Your task to perform on an android device: Do I have any events tomorrow? Image 0: 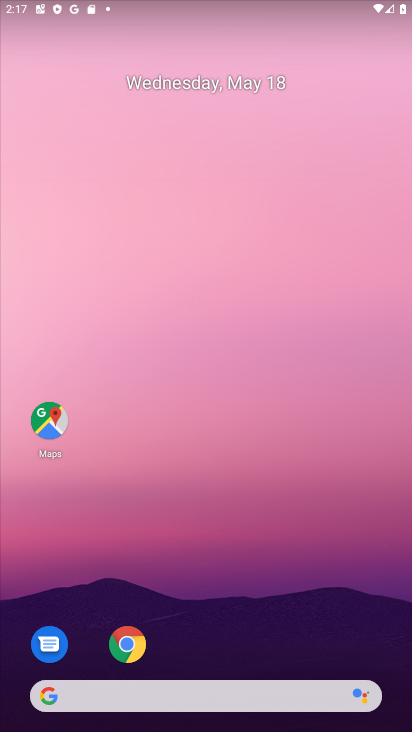
Step 0: drag from (256, 620) to (173, 150)
Your task to perform on an android device: Do I have any events tomorrow? Image 1: 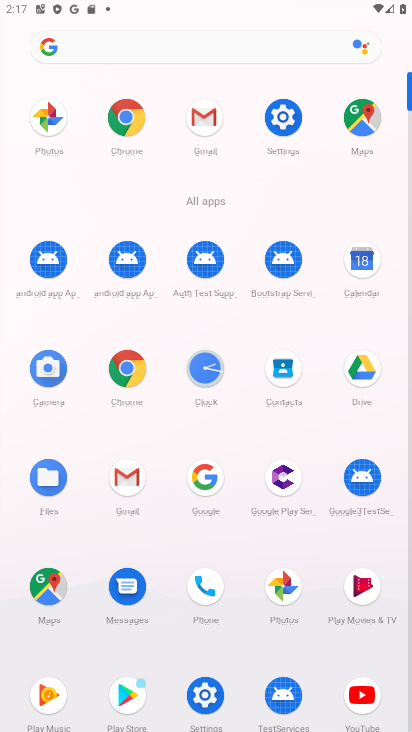
Step 1: click (366, 261)
Your task to perform on an android device: Do I have any events tomorrow? Image 2: 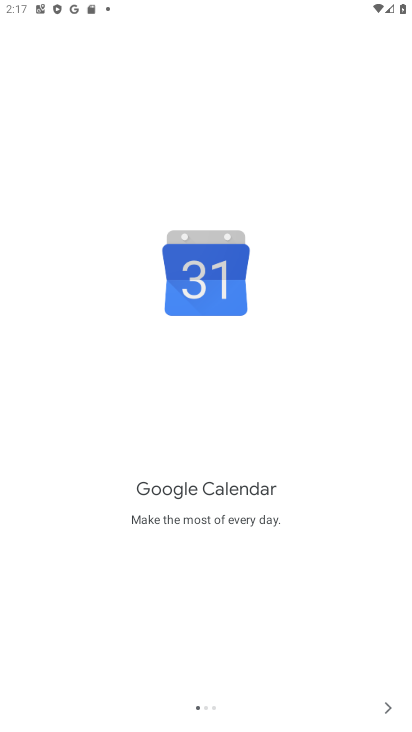
Step 2: click (390, 705)
Your task to perform on an android device: Do I have any events tomorrow? Image 3: 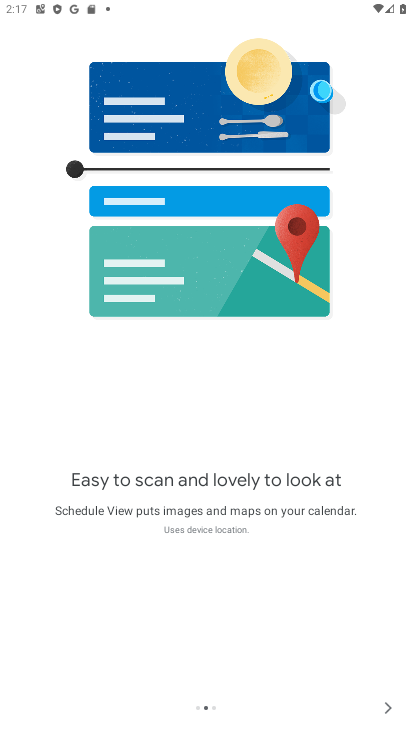
Step 3: click (390, 705)
Your task to perform on an android device: Do I have any events tomorrow? Image 4: 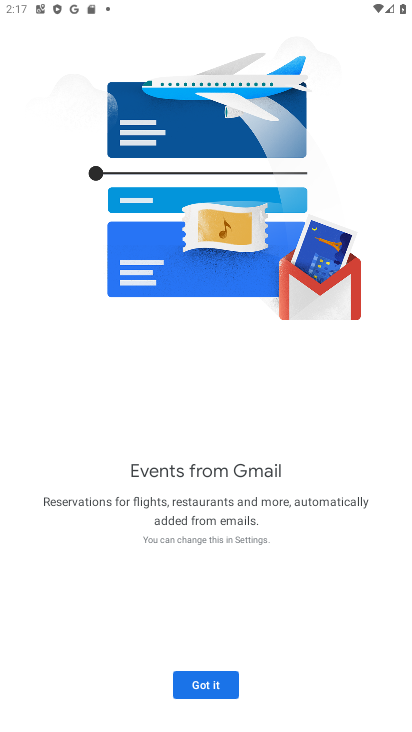
Step 4: click (225, 679)
Your task to perform on an android device: Do I have any events tomorrow? Image 5: 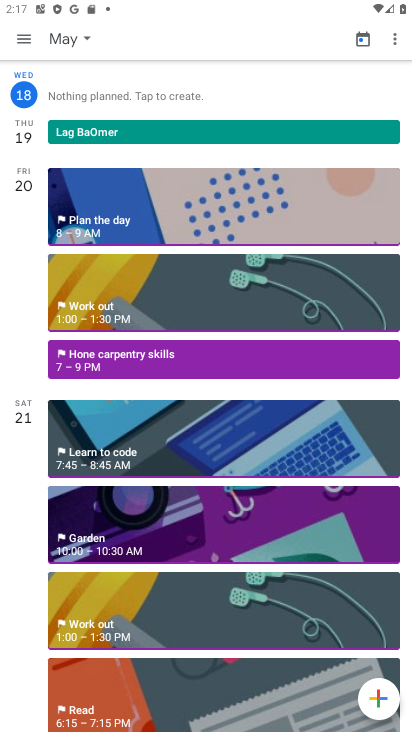
Step 5: click (91, 35)
Your task to perform on an android device: Do I have any events tomorrow? Image 6: 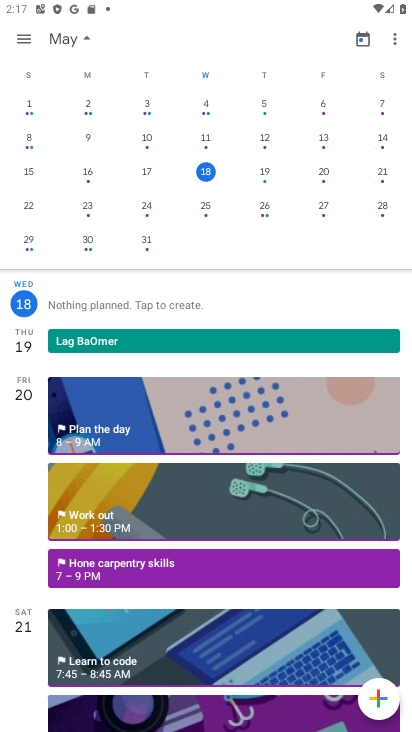
Step 6: click (264, 180)
Your task to perform on an android device: Do I have any events tomorrow? Image 7: 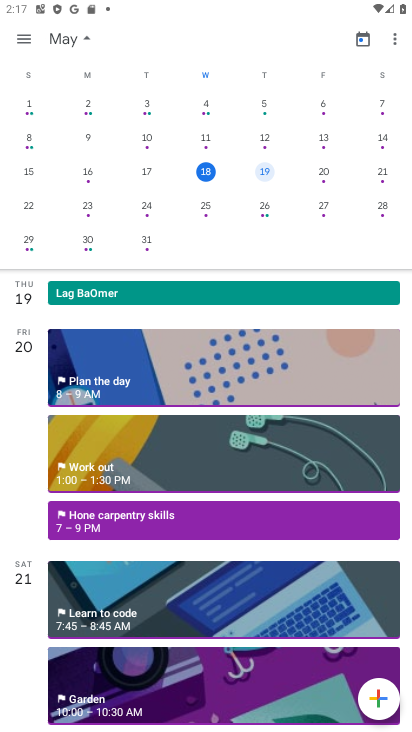
Step 7: click (32, 40)
Your task to perform on an android device: Do I have any events tomorrow? Image 8: 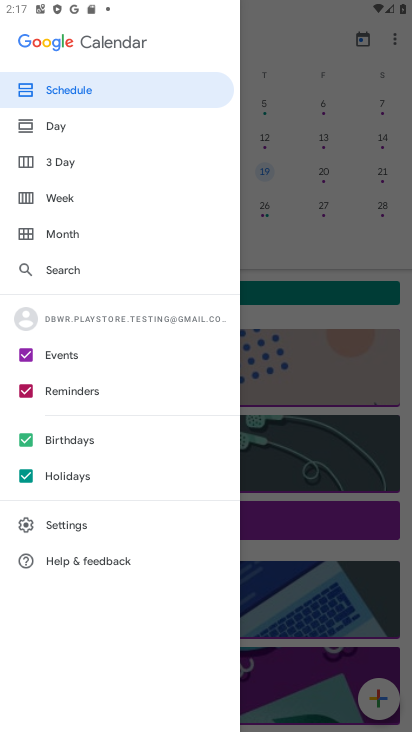
Step 8: click (69, 99)
Your task to perform on an android device: Do I have any events tomorrow? Image 9: 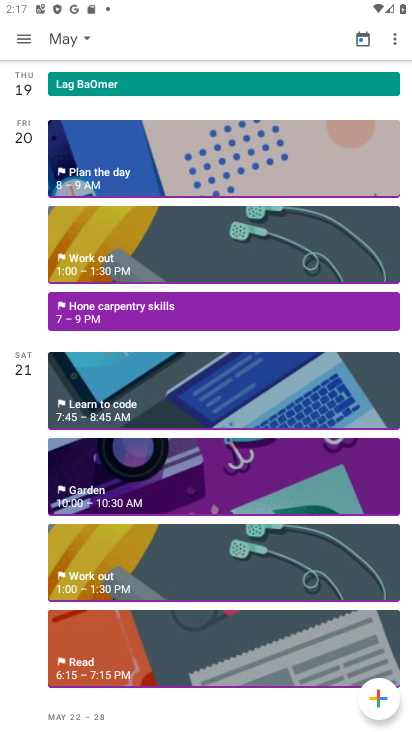
Step 9: click (193, 80)
Your task to perform on an android device: Do I have any events tomorrow? Image 10: 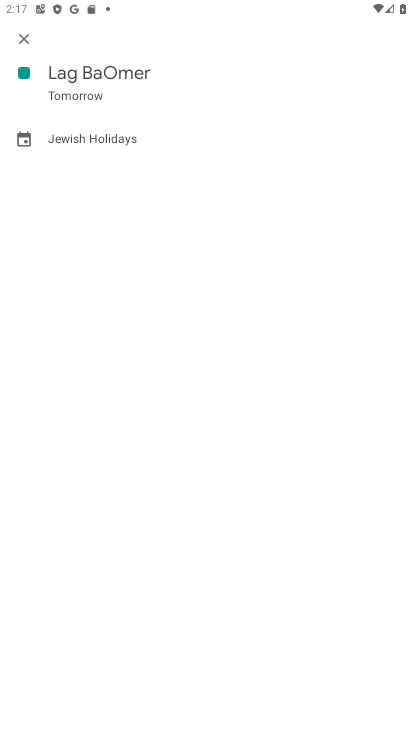
Step 10: task complete